Your task to perform on an android device: What's on my calendar tomorrow? Image 0: 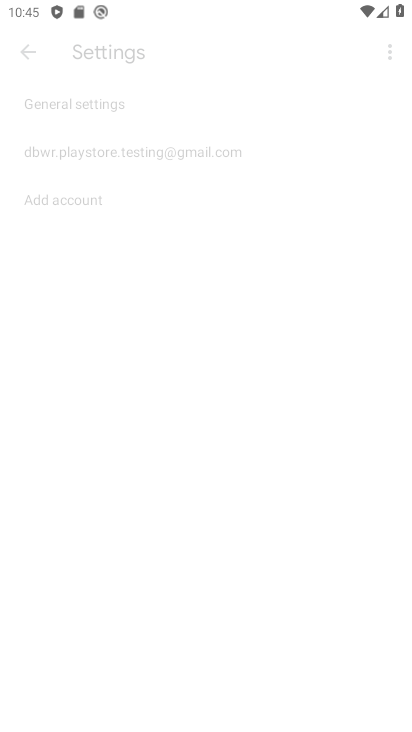
Step 0: drag from (214, 638) to (230, 30)
Your task to perform on an android device: What's on my calendar tomorrow? Image 1: 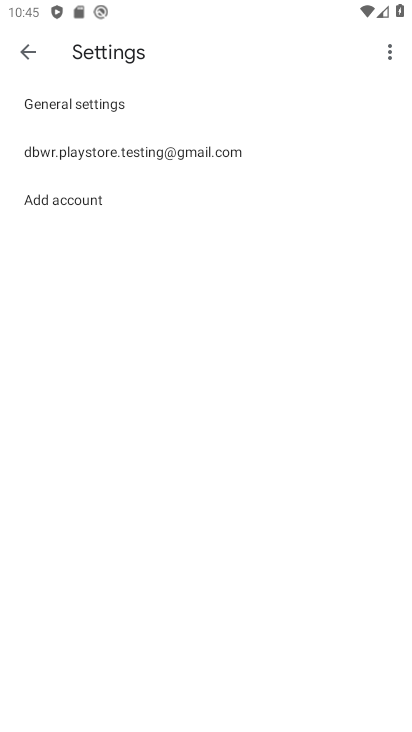
Step 1: press home button
Your task to perform on an android device: What's on my calendar tomorrow? Image 2: 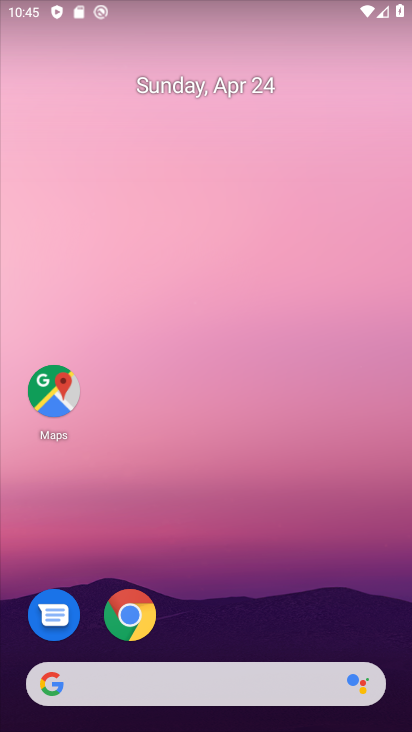
Step 2: drag from (219, 638) to (216, 115)
Your task to perform on an android device: What's on my calendar tomorrow? Image 3: 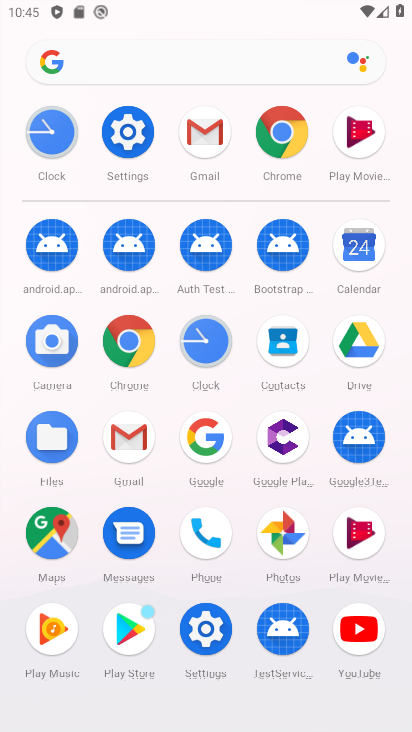
Step 3: click (358, 245)
Your task to perform on an android device: What's on my calendar tomorrow? Image 4: 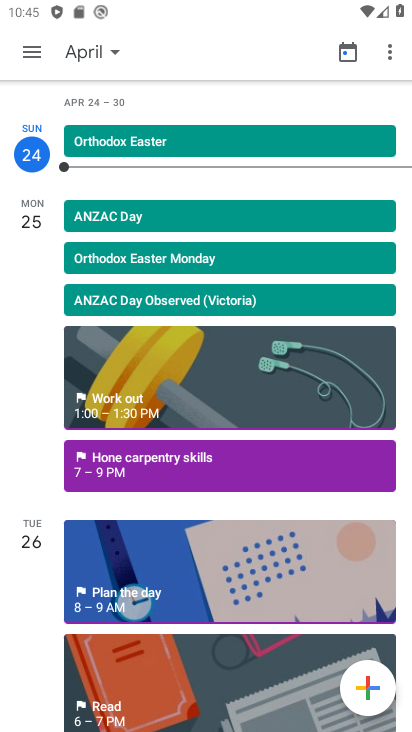
Step 4: click (37, 232)
Your task to perform on an android device: What's on my calendar tomorrow? Image 5: 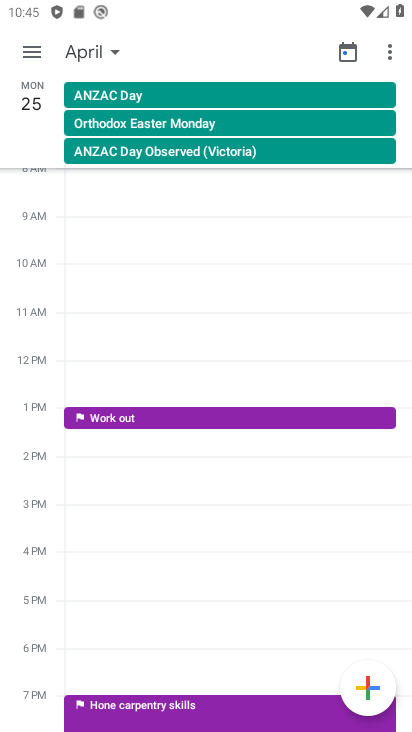
Step 5: task complete